Your task to perform on an android device: Go to Reddit.com Image 0: 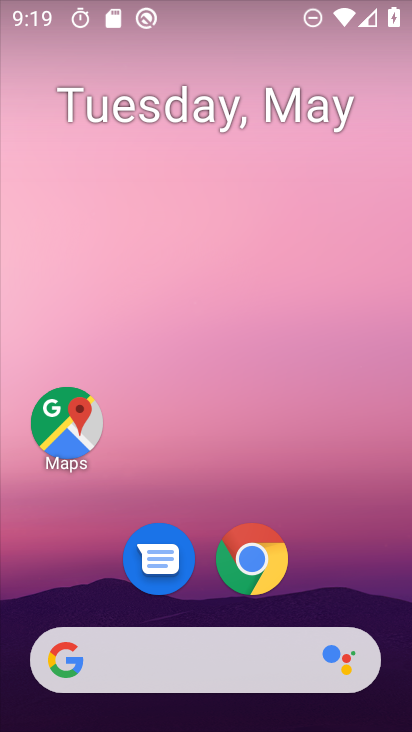
Step 0: drag from (391, 635) to (306, 44)
Your task to perform on an android device: Go to Reddit.com Image 1: 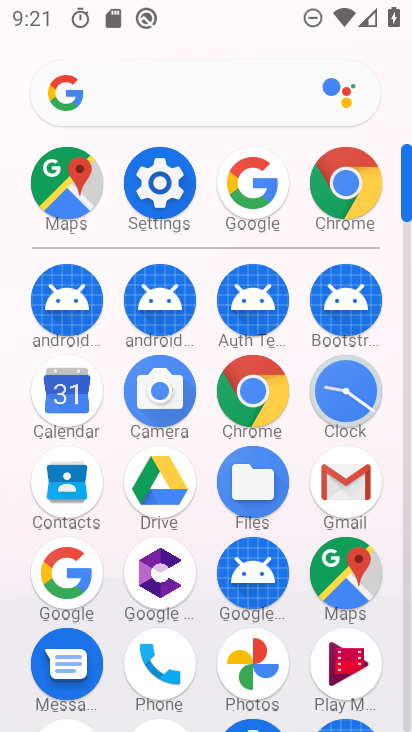
Step 1: click (76, 574)
Your task to perform on an android device: Go to Reddit.com Image 2: 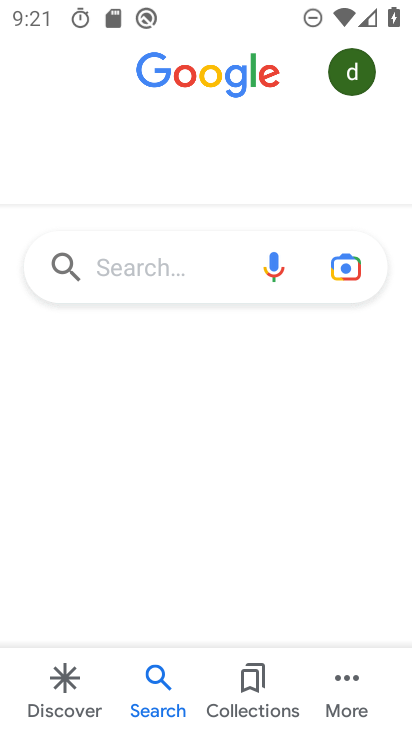
Step 2: click (141, 287)
Your task to perform on an android device: Go to Reddit.com Image 3: 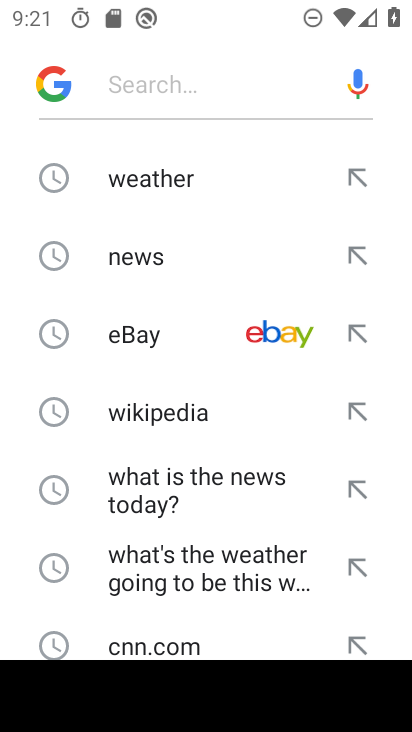
Step 3: type "reddit.com"
Your task to perform on an android device: Go to Reddit.com Image 4: 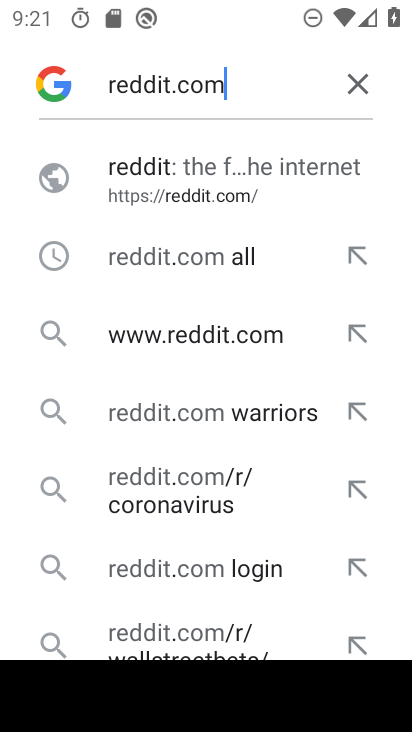
Step 4: click (173, 167)
Your task to perform on an android device: Go to Reddit.com Image 5: 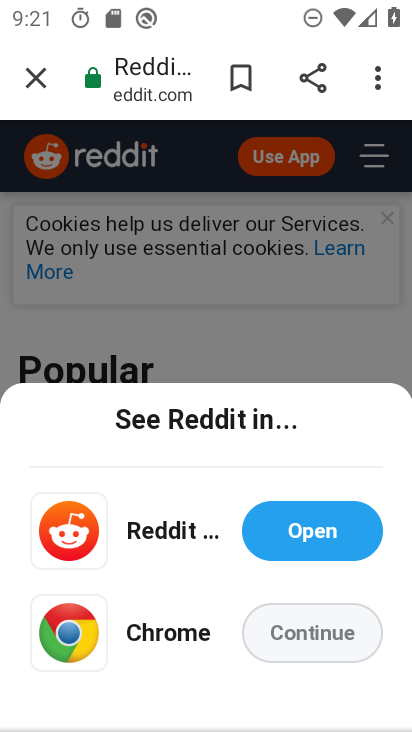
Step 5: task complete